Your task to perform on an android device: turn on airplane mode Image 0: 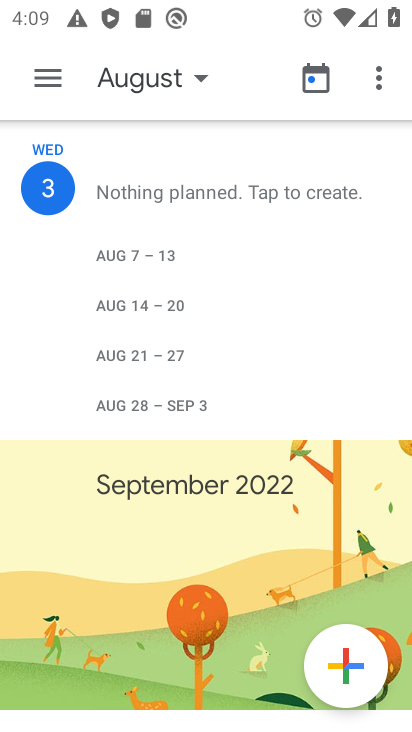
Step 0: press home button
Your task to perform on an android device: turn on airplane mode Image 1: 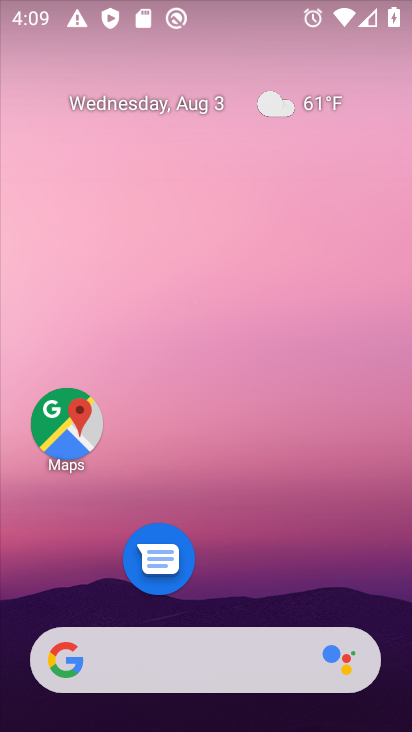
Step 1: drag from (170, 640) to (173, 215)
Your task to perform on an android device: turn on airplane mode Image 2: 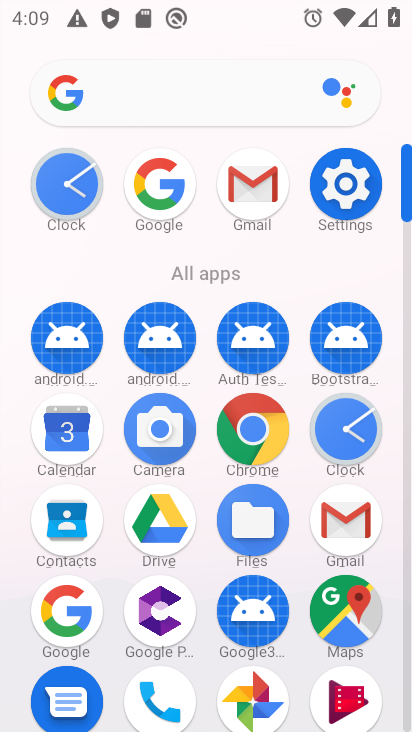
Step 2: click (346, 182)
Your task to perform on an android device: turn on airplane mode Image 3: 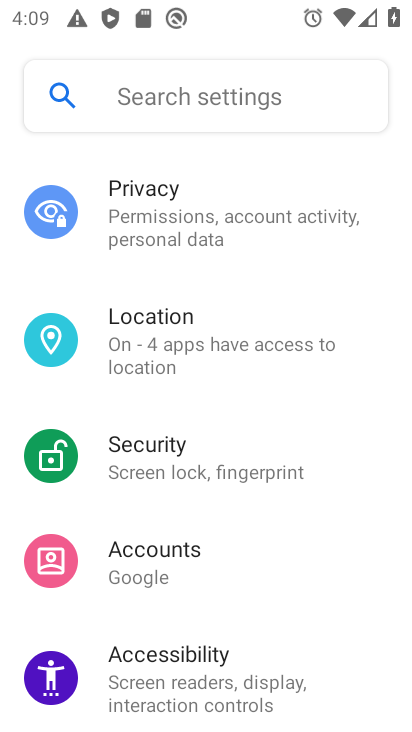
Step 3: drag from (170, 168) to (170, 569)
Your task to perform on an android device: turn on airplane mode Image 4: 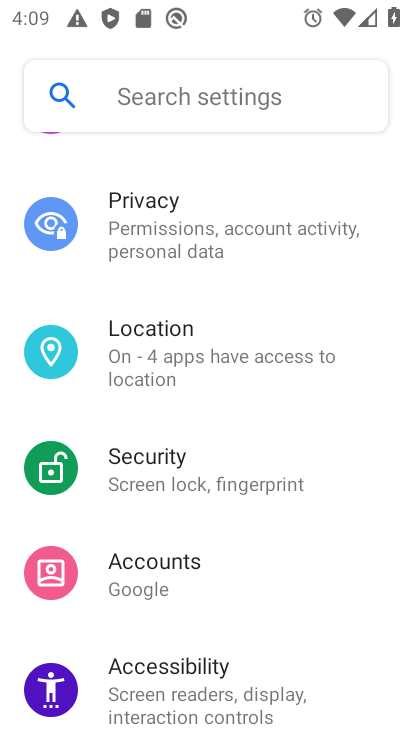
Step 4: drag from (130, 173) to (160, 547)
Your task to perform on an android device: turn on airplane mode Image 5: 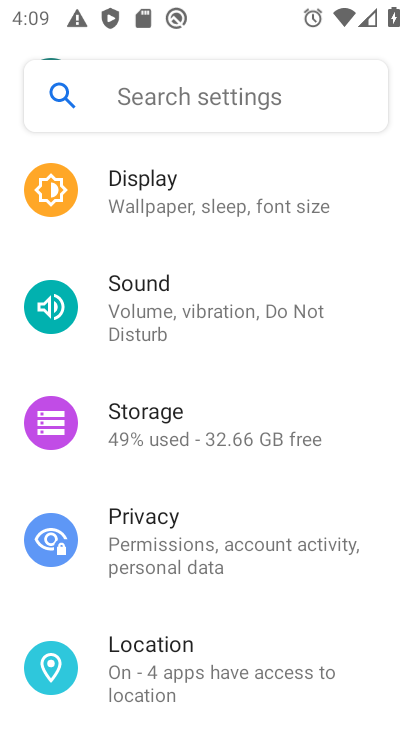
Step 5: drag from (120, 164) to (144, 525)
Your task to perform on an android device: turn on airplane mode Image 6: 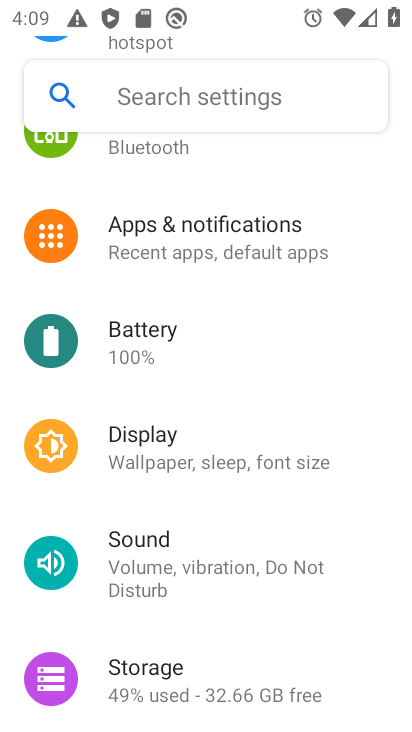
Step 6: drag from (130, 179) to (153, 549)
Your task to perform on an android device: turn on airplane mode Image 7: 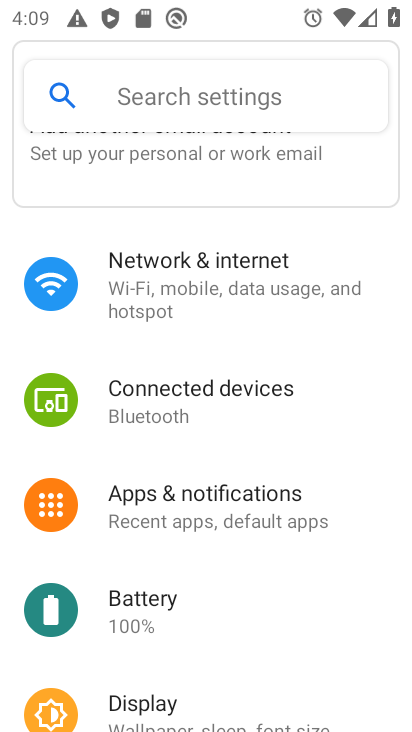
Step 7: click (126, 299)
Your task to perform on an android device: turn on airplane mode Image 8: 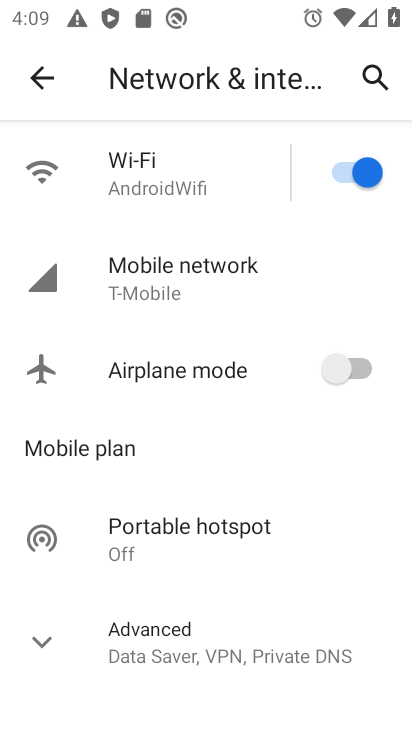
Step 8: click (351, 368)
Your task to perform on an android device: turn on airplane mode Image 9: 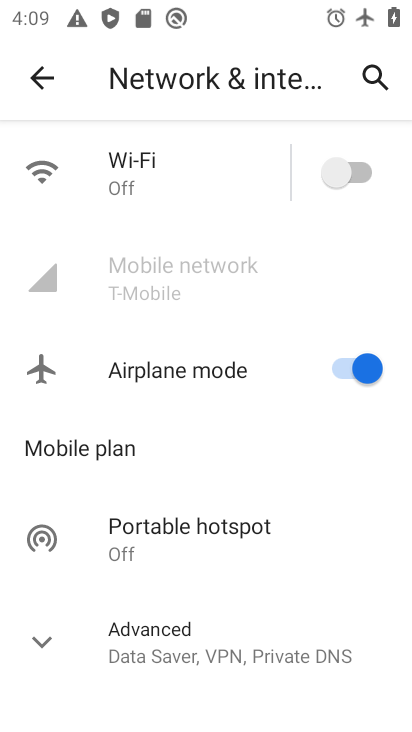
Step 9: task complete